Your task to perform on an android device: install app "Expedia: Hotels, Flights & Car" Image 0: 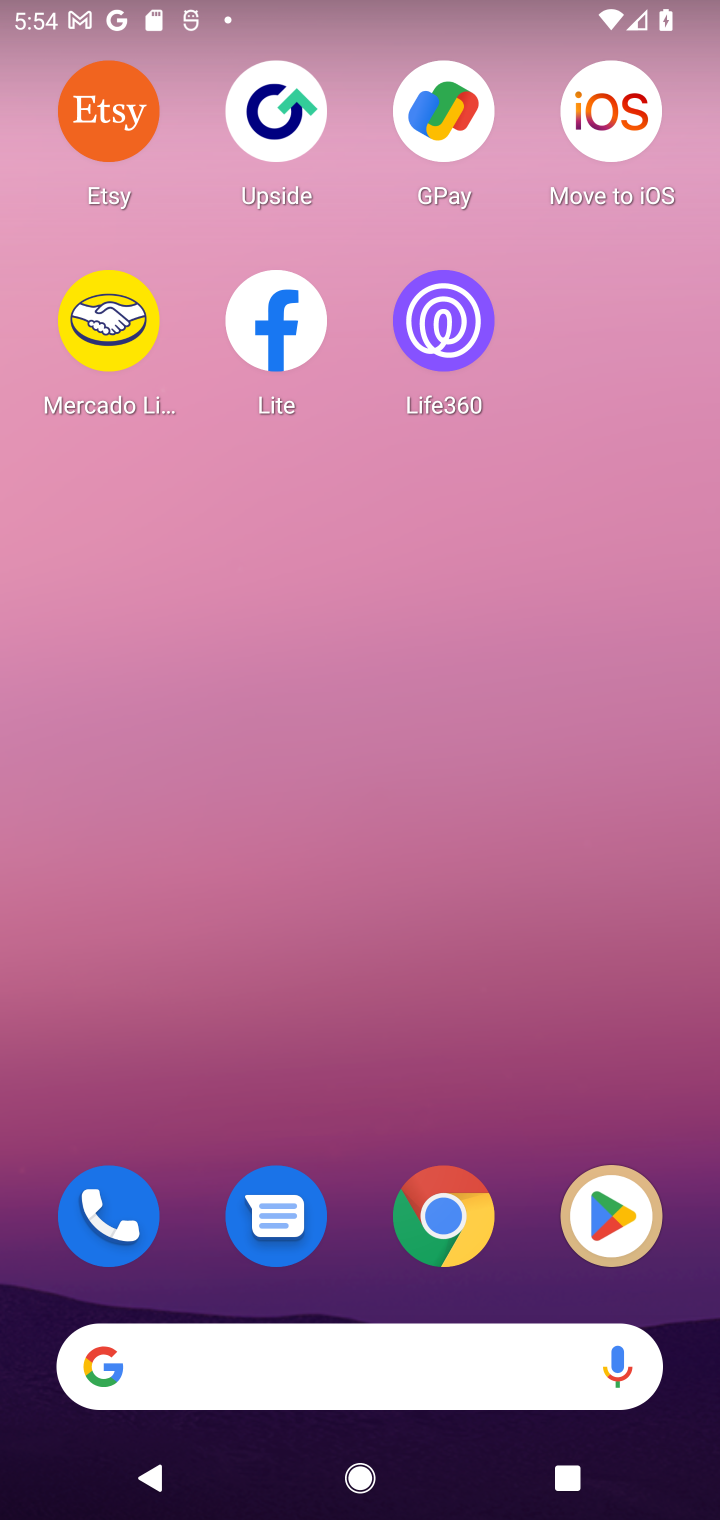
Step 0: click (615, 1211)
Your task to perform on an android device: install app "Expedia: Hotels, Flights & Car" Image 1: 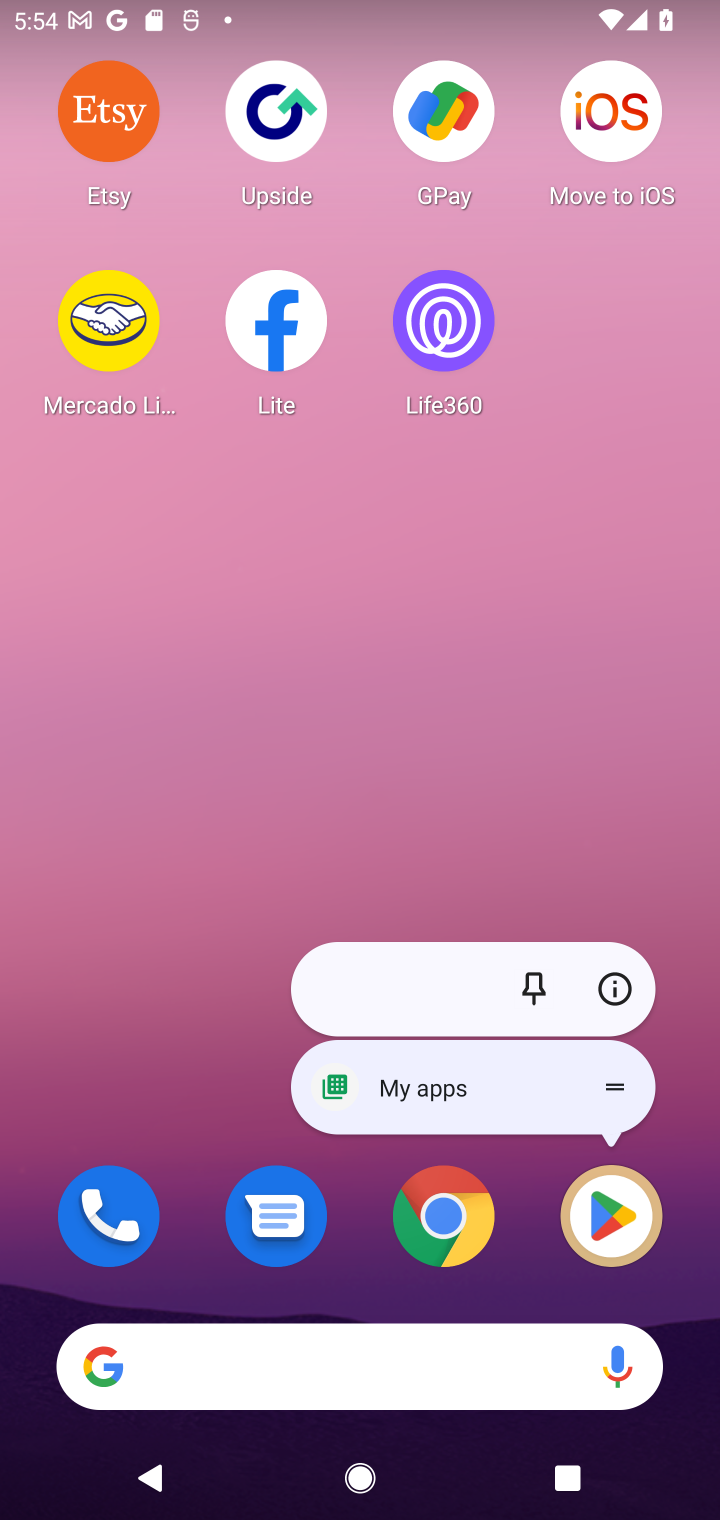
Step 1: click (614, 1211)
Your task to perform on an android device: install app "Expedia: Hotels, Flights & Car" Image 2: 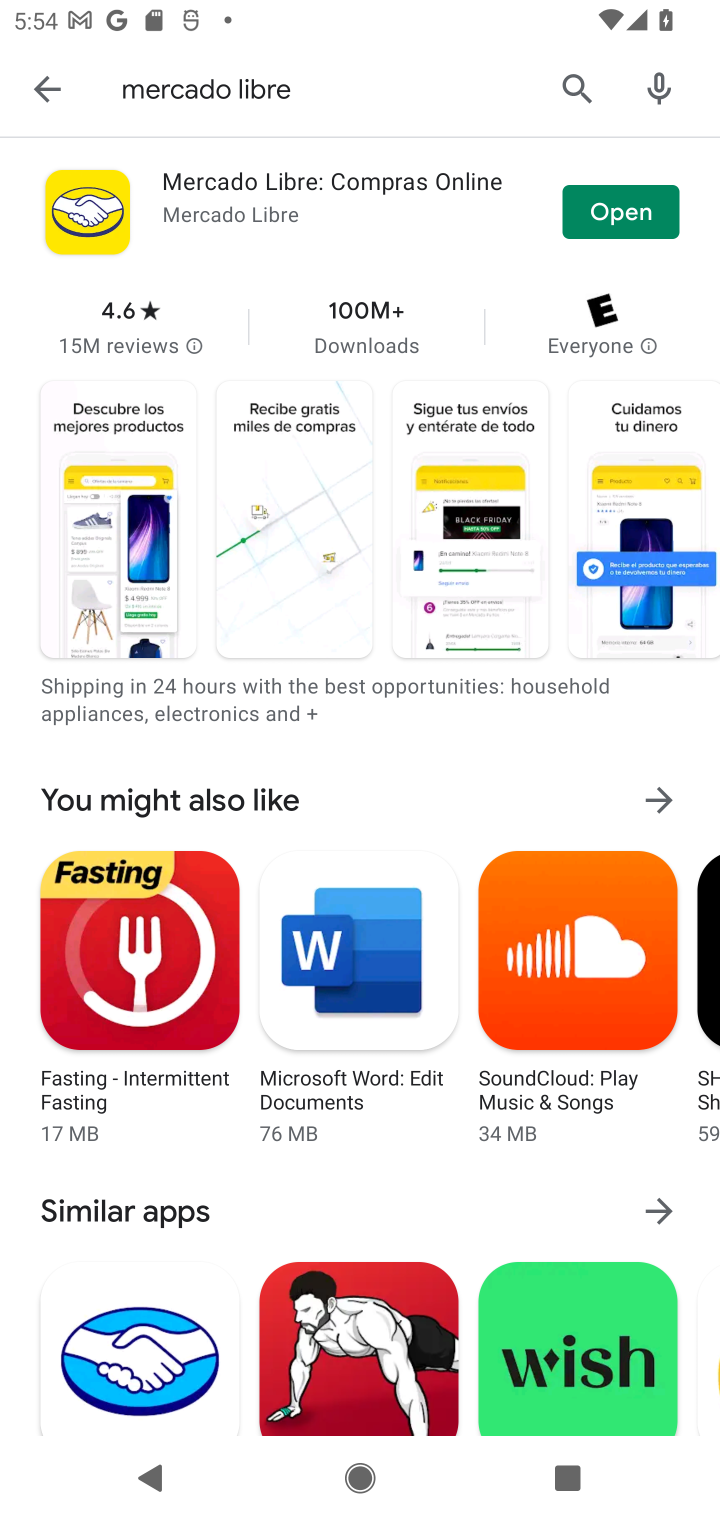
Step 2: click (578, 79)
Your task to perform on an android device: install app "Expedia: Hotels, Flights & Car" Image 3: 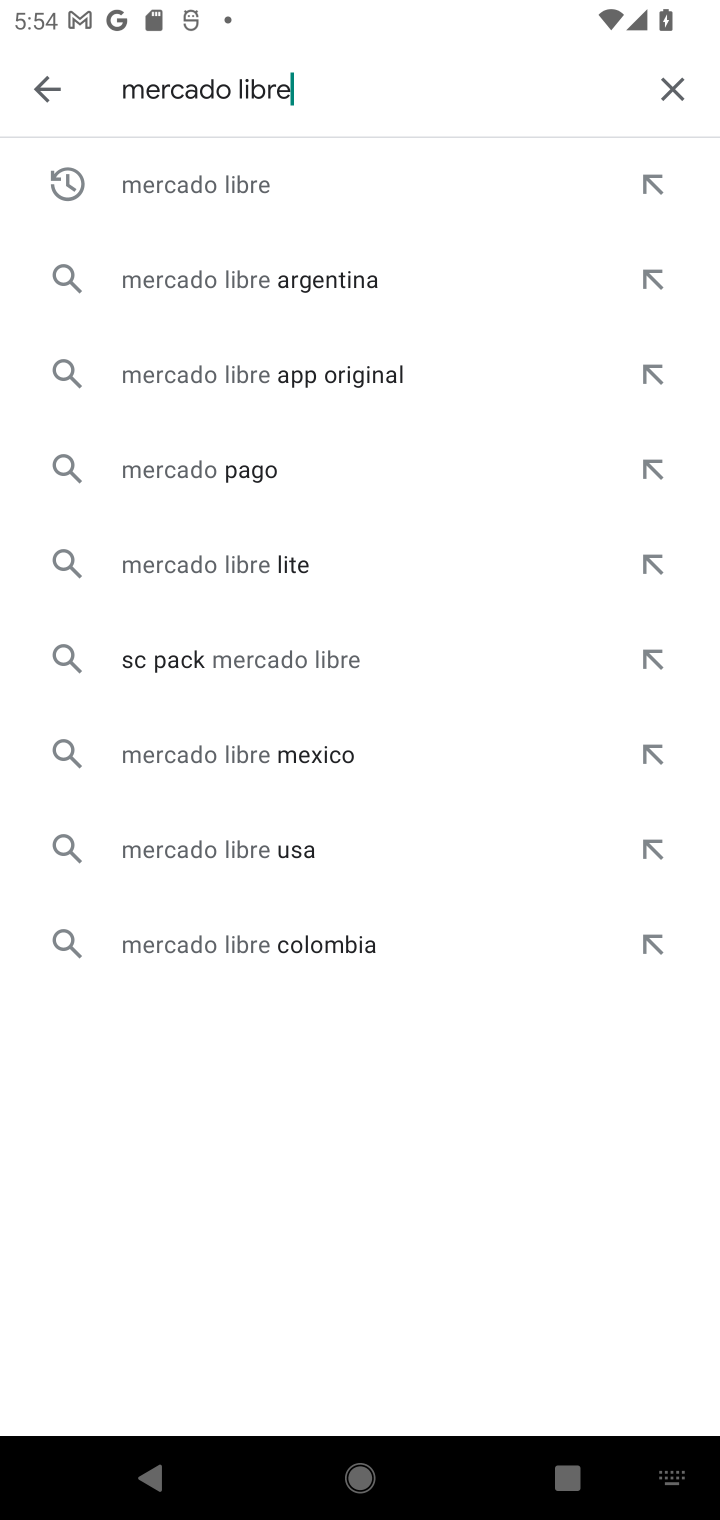
Step 3: click (665, 85)
Your task to perform on an android device: install app "Expedia: Hotels, Flights & Car" Image 4: 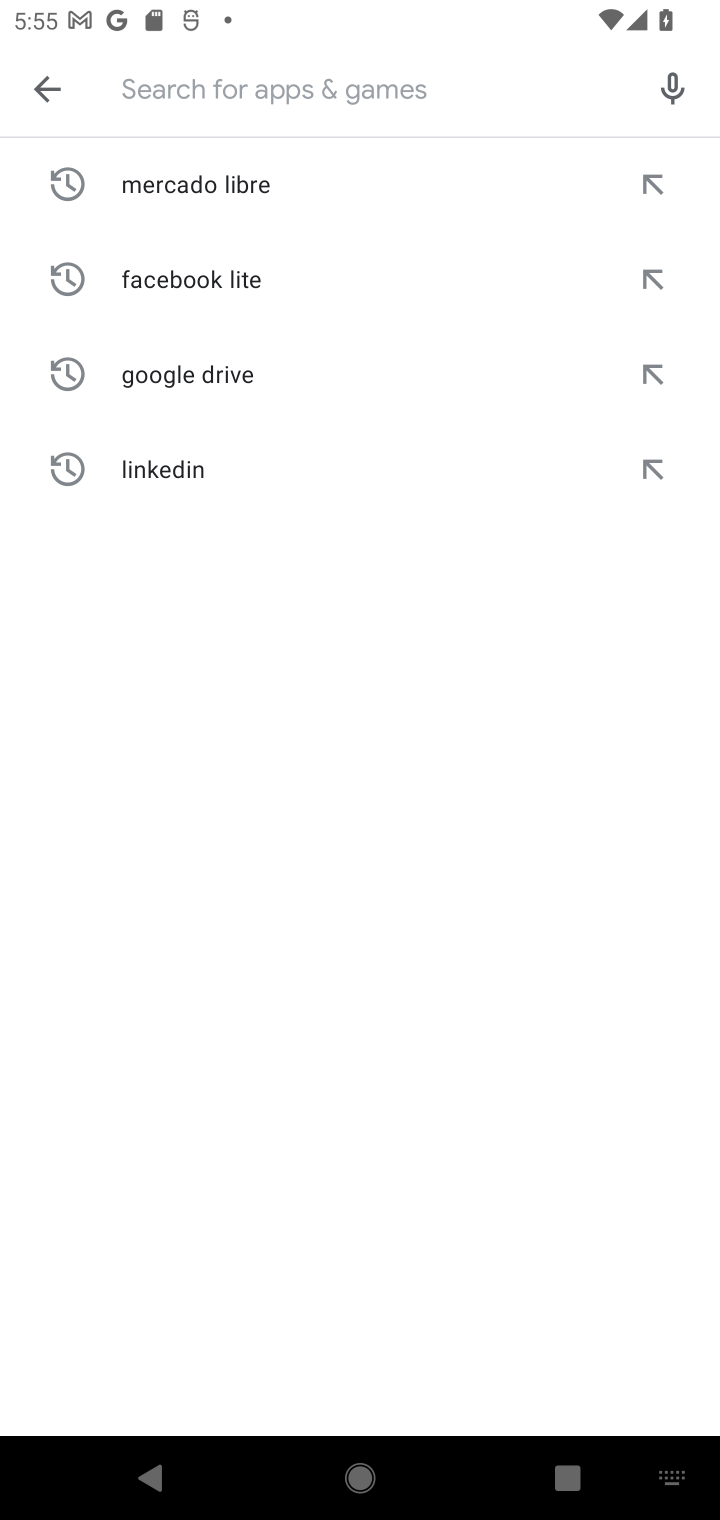
Step 4: type "Expedia: Hotels, Flights & Car"
Your task to perform on an android device: install app "Expedia: Hotels, Flights & Car" Image 5: 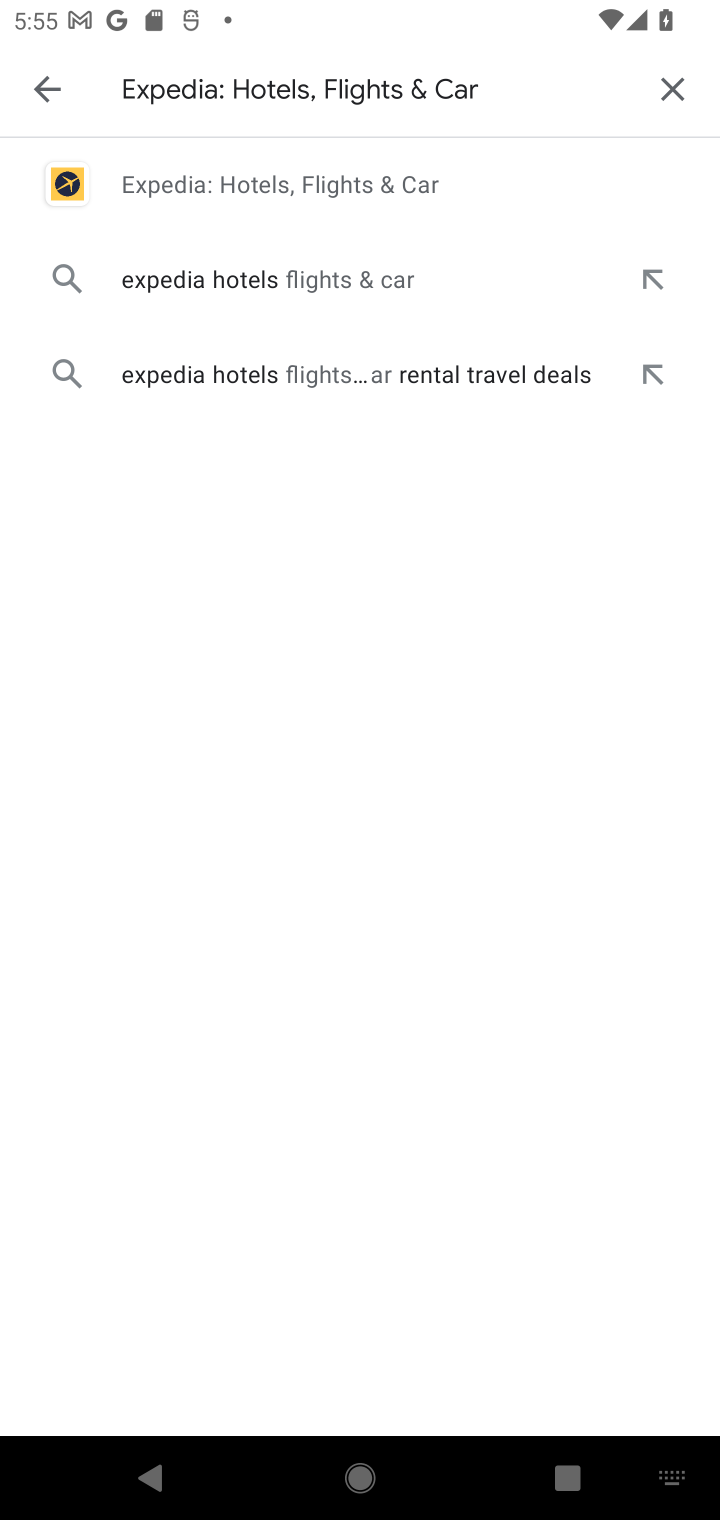
Step 5: click (243, 179)
Your task to perform on an android device: install app "Expedia: Hotels, Flights & Car" Image 6: 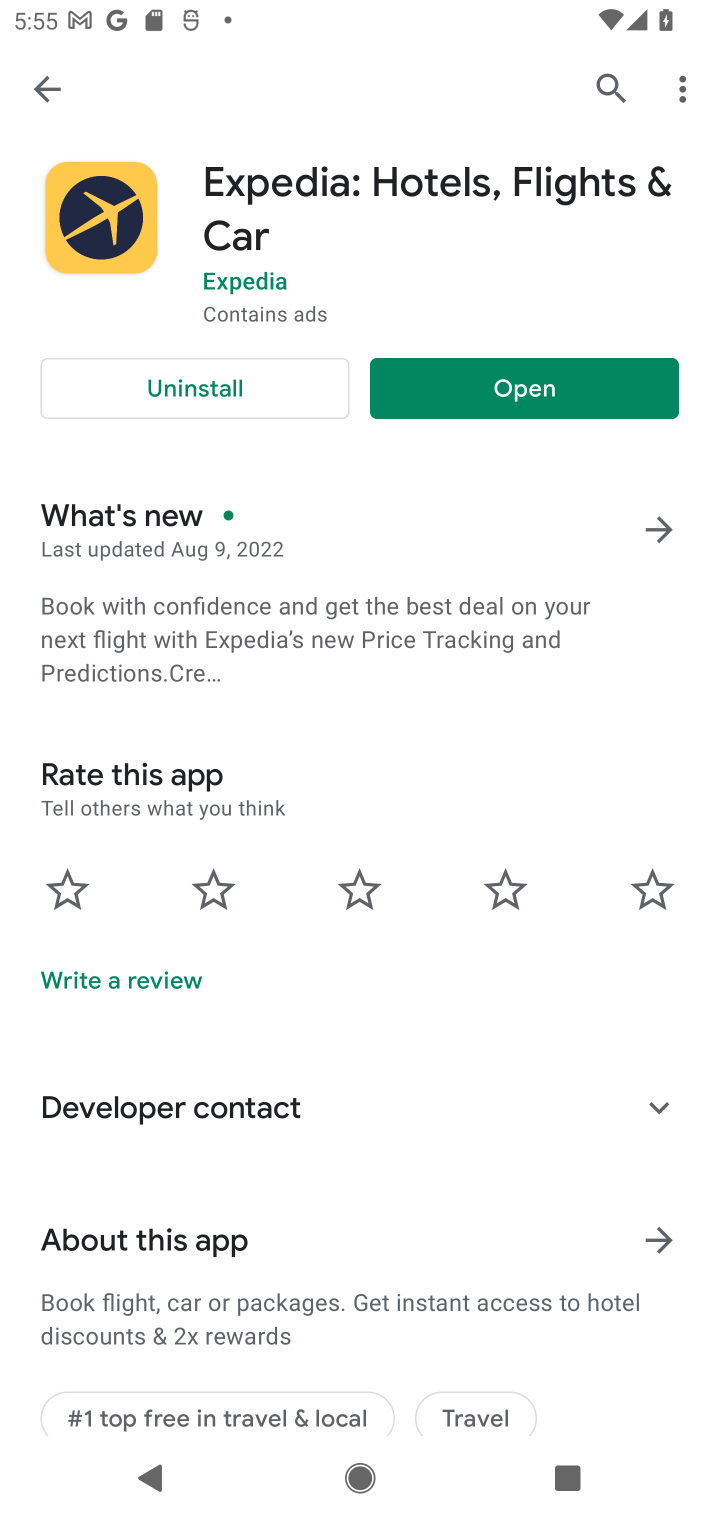
Step 6: task complete